Your task to perform on an android device: turn off location Image 0: 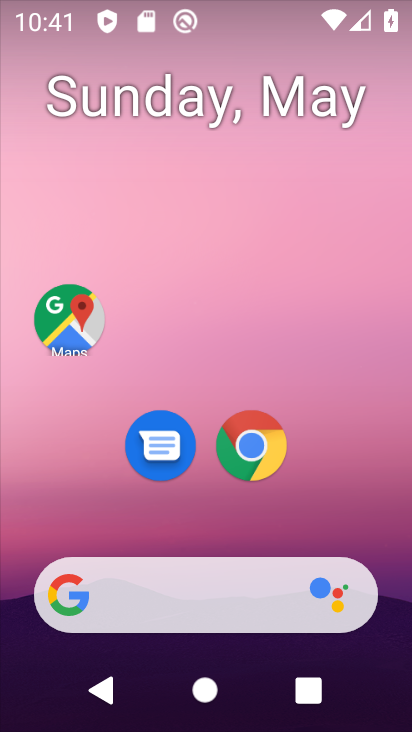
Step 0: drag from (318, 483) to (199, 4)
Your task to perform on an android device: turn off location Image 1: 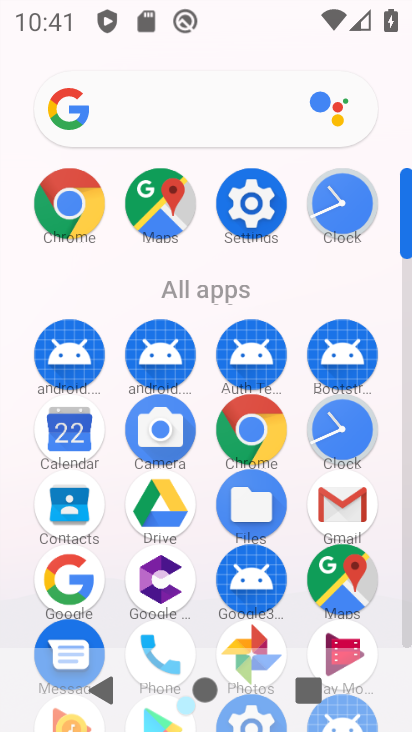
Step 1: click (264, 188)
Your task to perform on an android device: turn off location Image 2: 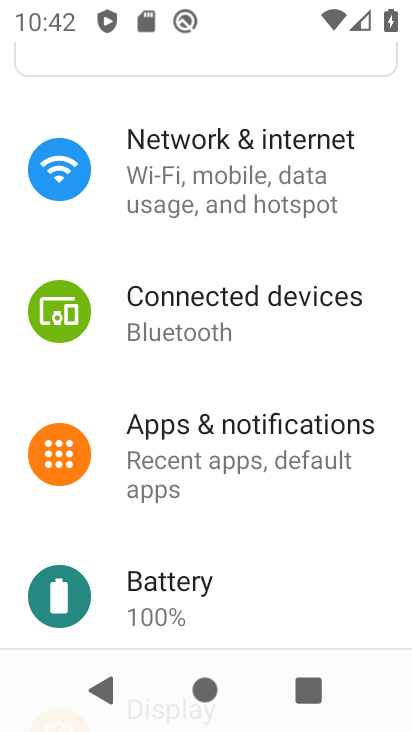
Step 2: drag from (276, 540) to (272, 154)
Your task to perform on an android device: turn off location Image 3: 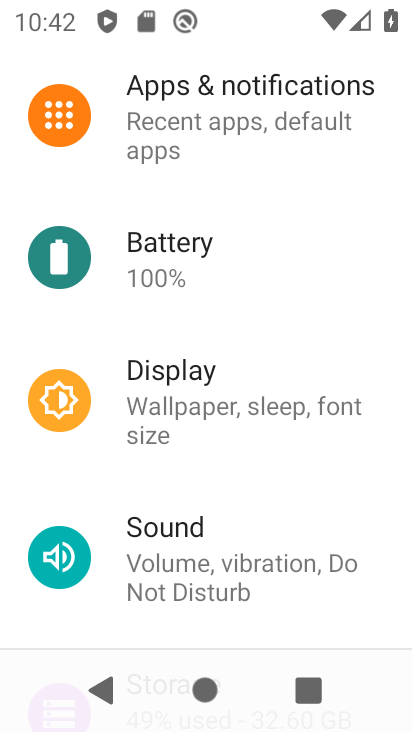
Step 3: drag from (256, 548) to (246, 94)
Your task to perform on an android device: turn off location Image 4: 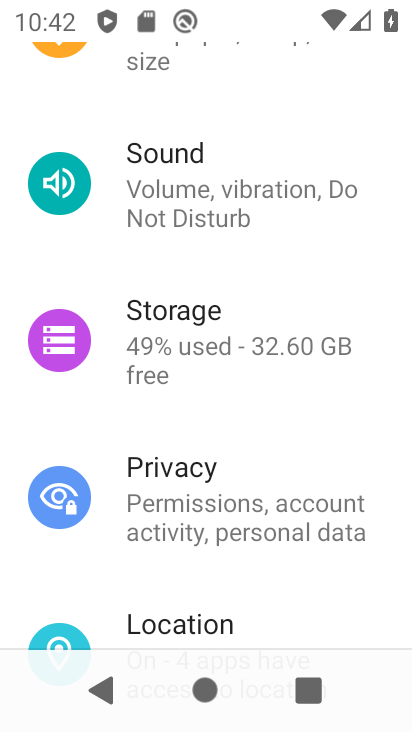
Step 4: click (235, 599)
Your task to perform on an android device: turn off location Image 5: 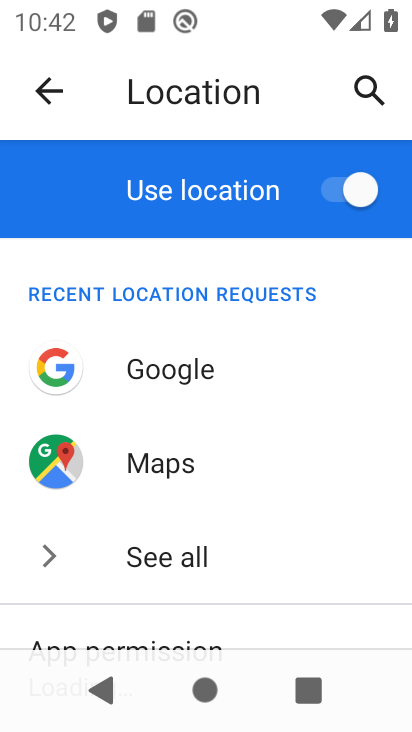
Step 5: drag from (251, 566) to (246, 289)
Your task to perform on an android device: turn off location Image 6: 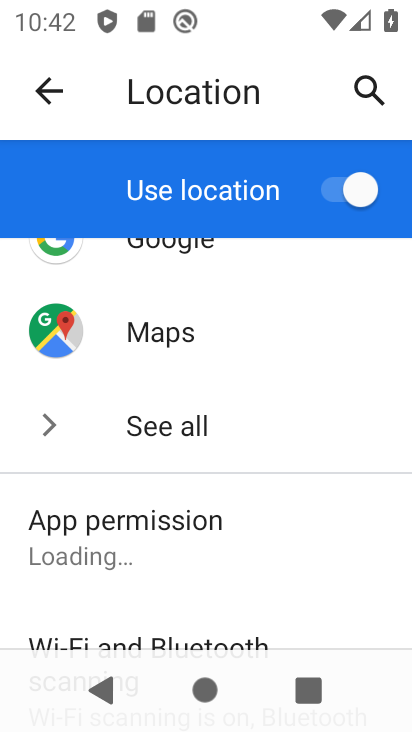
Step 6: click (354, 194)
Your task to perform on an android device: turn off location Image 7: 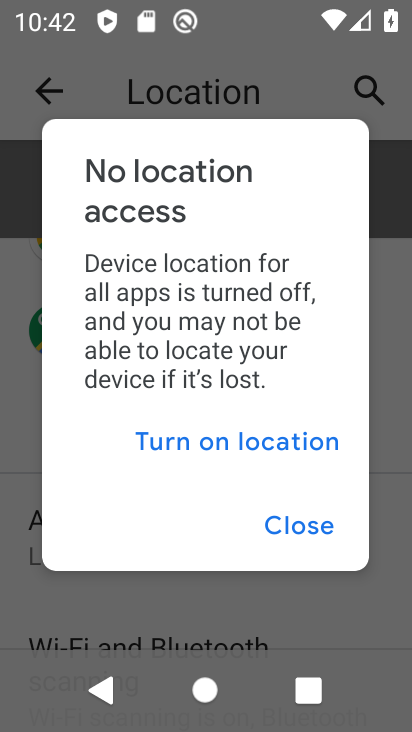
Step 7: click (297, 516)
Your task to perform on an android device: turn off location Image 8: 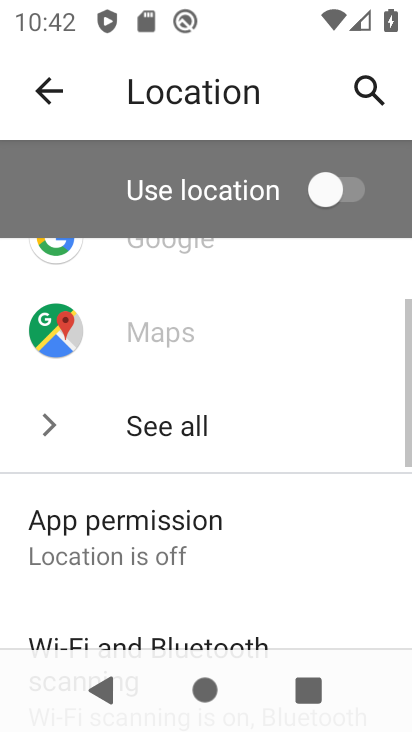
Step 8: task complete